Your task to perform on an android device: Open the Play Movies app and select the watchlist tab. Image 0: 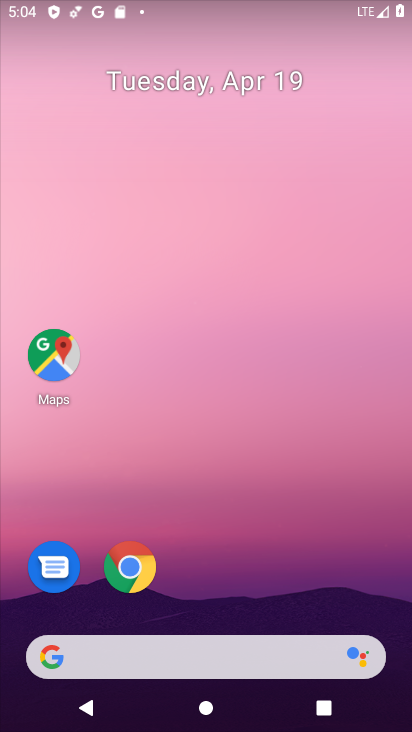
Step 0: drag from (289, 639) to (270, 38)
Your task to perform on an android device: Open the Play Movies app and select the watchlist tab. Image 1: 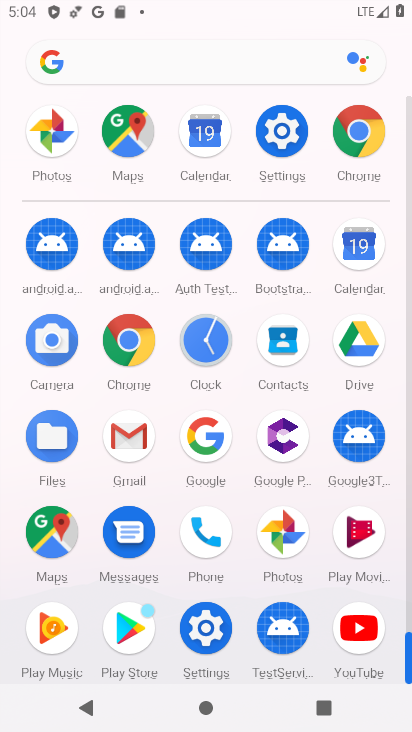
Step 1: click (345, 532)
Your task to perform on an android device: Open the Play Movies app and select the watchlist tab. Image 2: 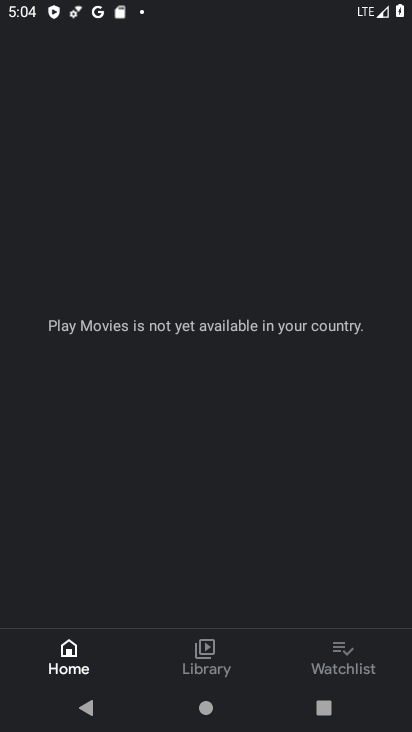
Step 2: click (362, 661)
Your task to perform on an android device: Open the Play Movies app and select the watchlist tab. Image 3: 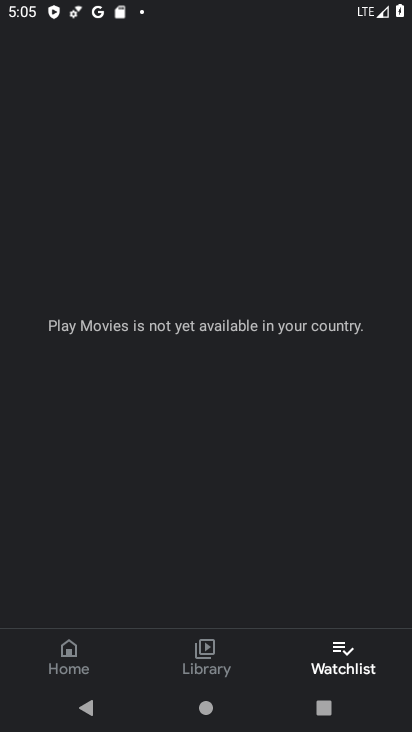
Step 3: task complete